Your task to perform on an android device: Open the map Image 0: 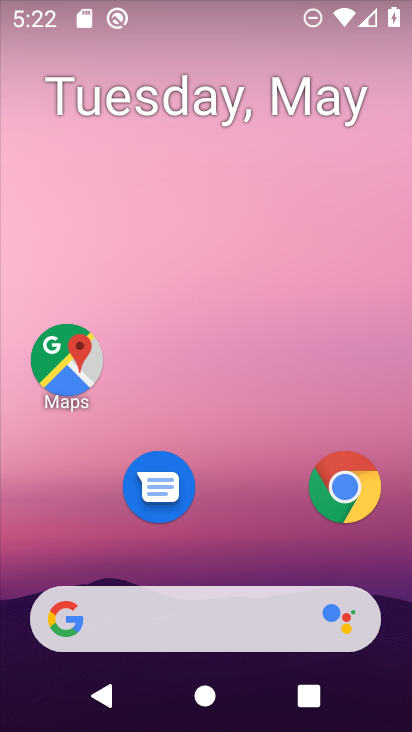
Step 0: click (77, 392)
Your task to perform on an android device: Open the map Image 1: 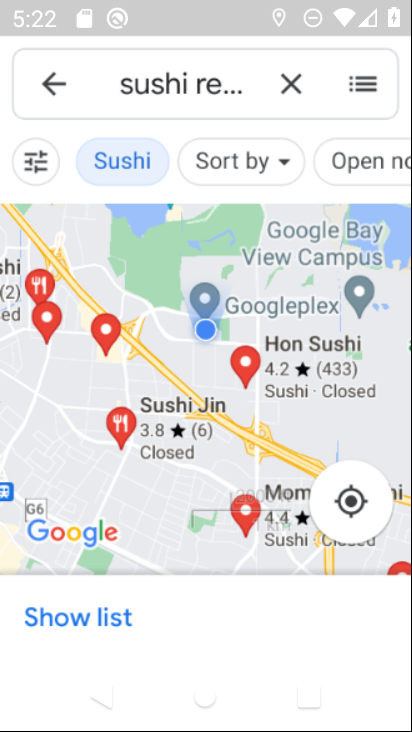
Step 1: task complete